Your task to perform on an android device: Is it going to rain this weekend? Image 0: 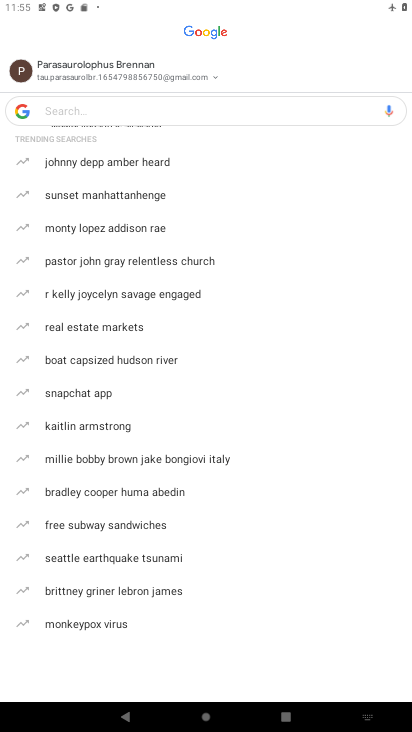
Step 0: press home button
Your task to perform on an android device: Is it going to rain this weekend? Image 1: 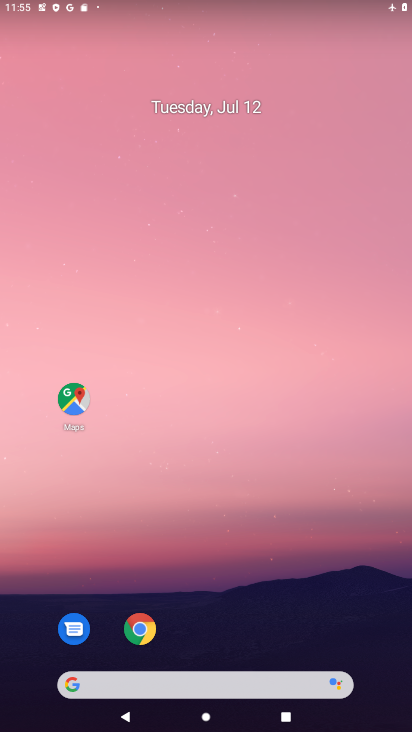
Step 1: click (144, 624)
Your task to perform on an android device: Is it going to rain this weekend? Image 2: 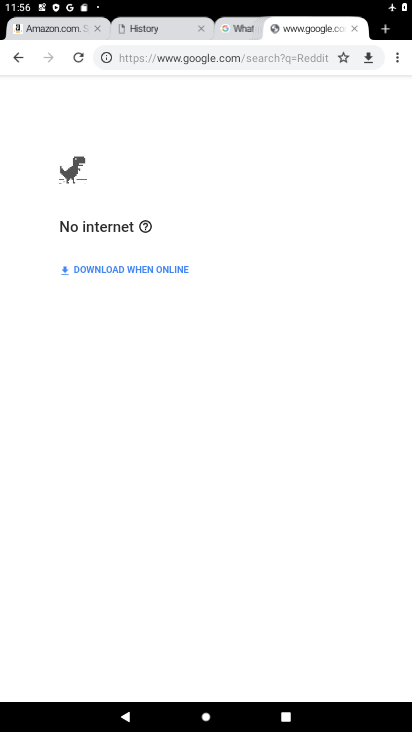
Step 2: click (391, 28)
Your task to perform on an android device: Is it going to rain this weekend? Image 3: 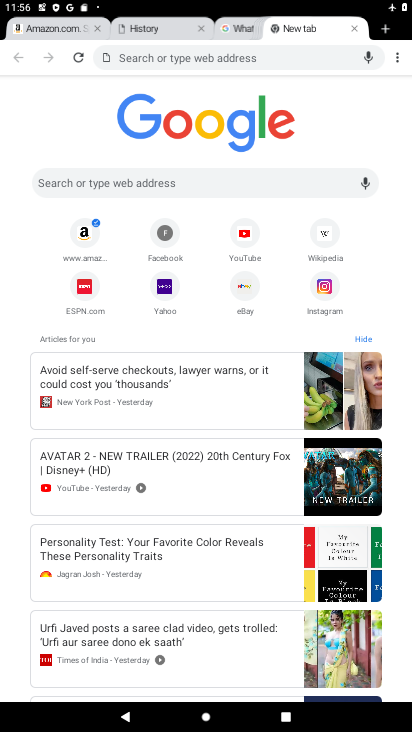
Step 3: click (220, 175)
Your task to perform on an android device: Is it going to rain this weekend? Image 4: 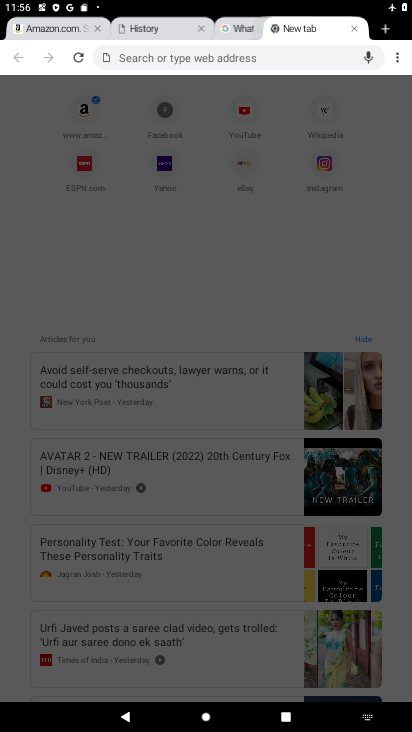
Step 4: type "Is it going to rain this weekend "
Your task to perform on an android device: Is it going to rain this weekend? Image 5: 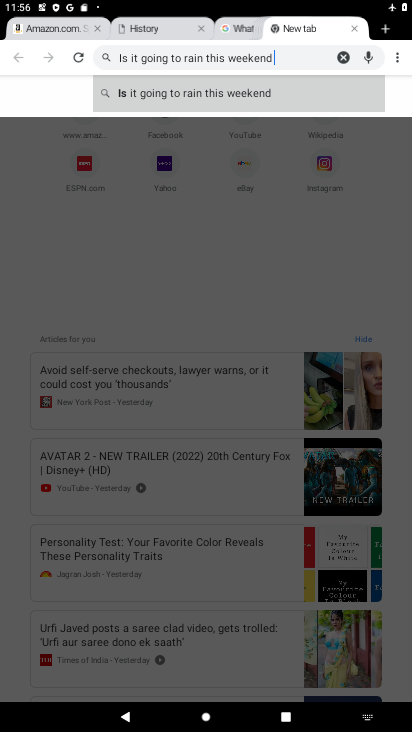
Step 5: click (197, 92)
Your task to perform on an android device: Is it going to rain this weekend? Image 6: 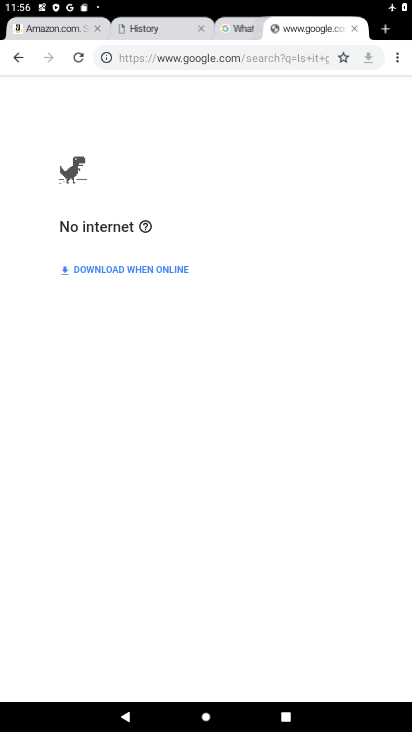
Step 6: task complete